Your task to perform on an android device: Do I have any events today? Image 0: 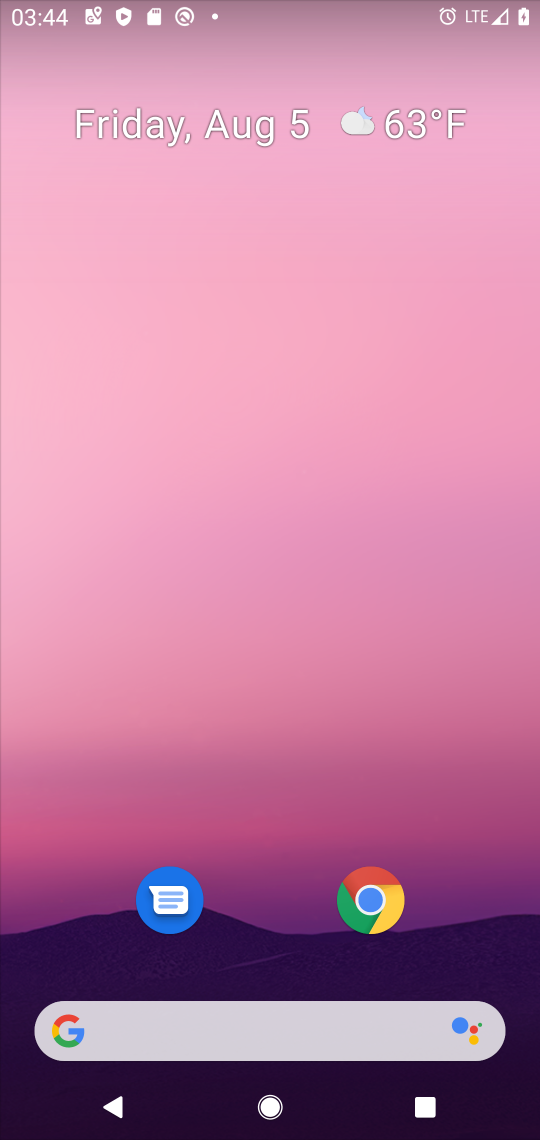
Step 0: drag from (317, 896) to (319, 335)
Your task to perform on an android device: Do I have any events today? Image 1: 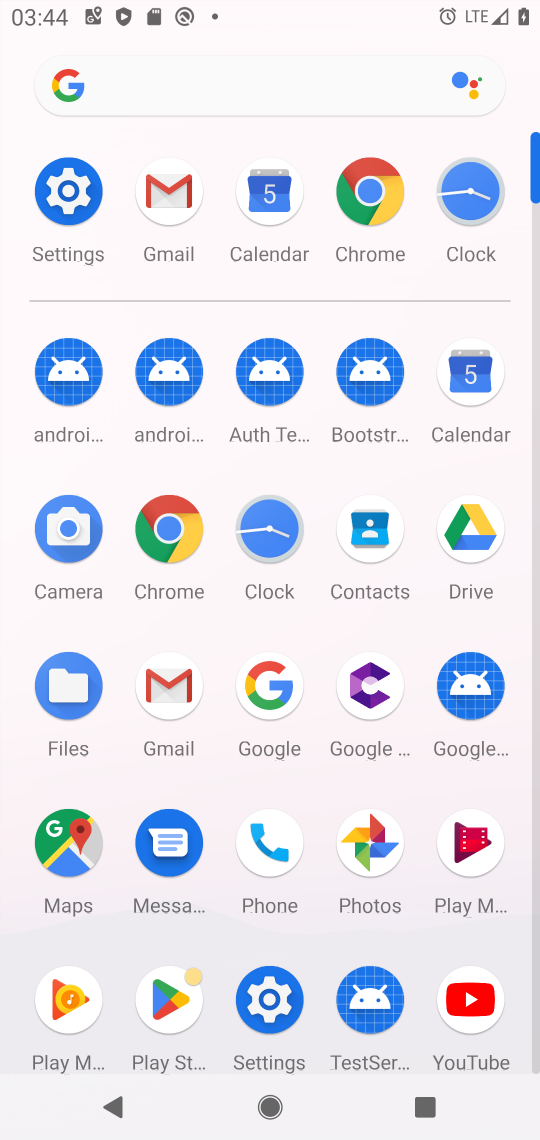
Step 1: click (492, 394)
Your task to perform on an android device: Do I have any events today? Image 2: 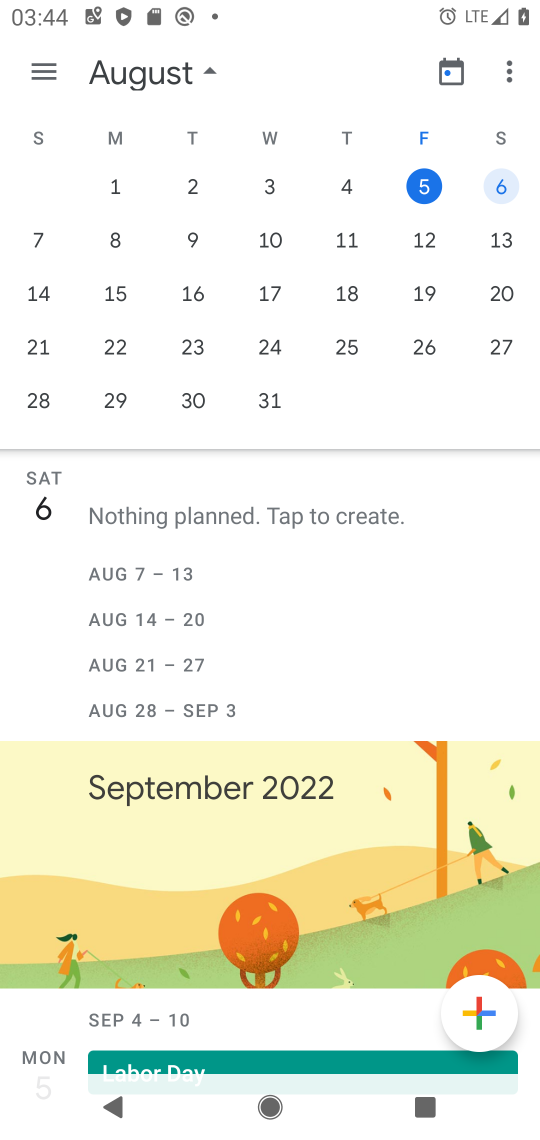
Step 2: task complete